Your task to perform on an android device: add a contact in the contacts app Image 0: 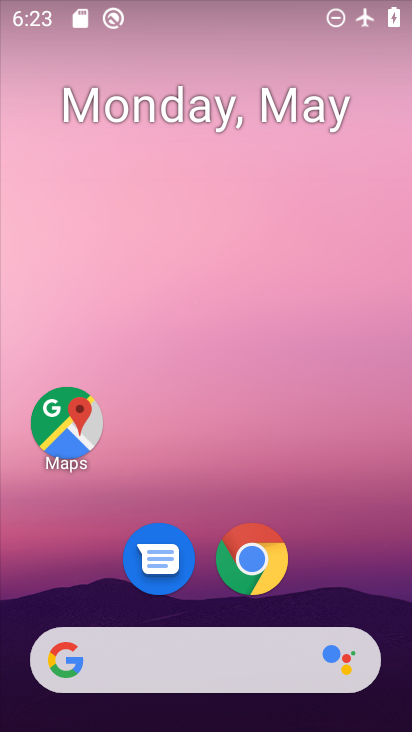
Step 0: drag from (341, 532) to (194, 11)
Your task to perform on an android device: add a contact in the contacts app Image 1: 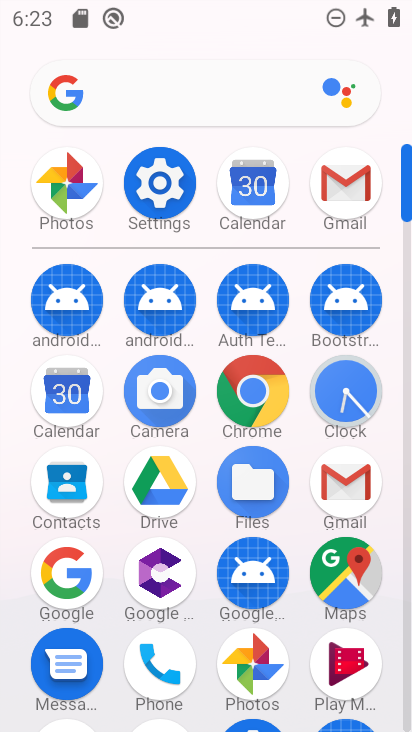
Step 1: click (61, 487)
Your task to perform on an android device: add a contact in the contacts app Image 2: 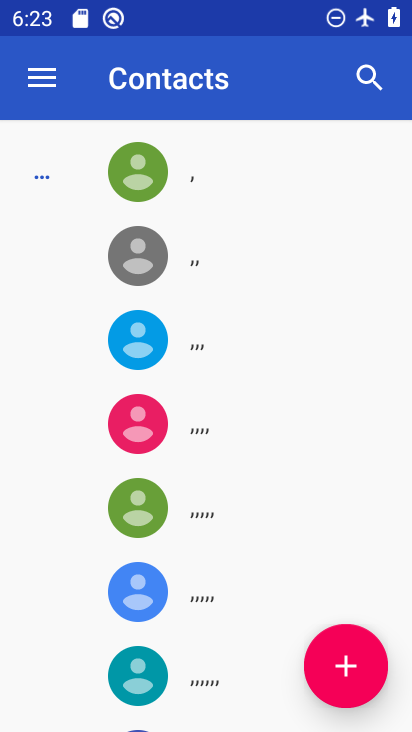
Step 2: click (342, 657)
Your task to perform on an android device: add a contact in the contacts app Image 3: 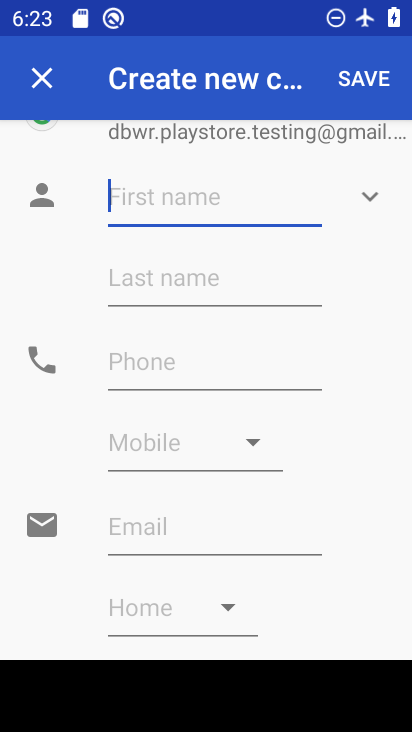
Step 3: type " cv"
Your task to perform on an android device: add a contact in the contacts app Image 4: 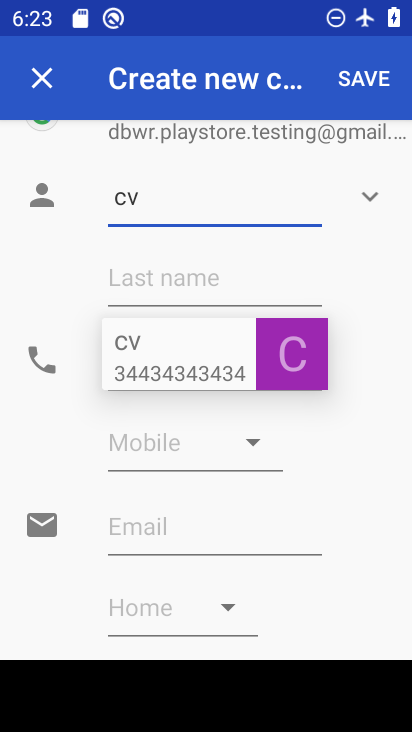
Step 4: click (137, 354)
Your task to perform on an android device: add a contact in the contacts app Image 5: 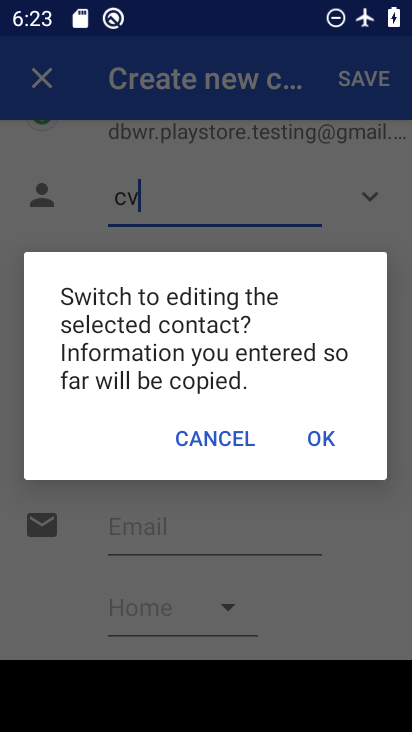
Step 5: click (217, 422)
Your task to perform on an android device: add a contact in the contacts app Image 6: 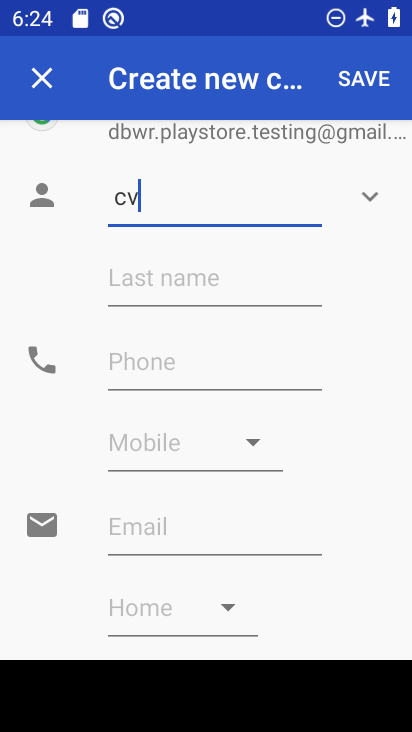
Step 6: click (150, 347)
Your task to perform on an android device: add a contact in the contacts app Image 7: 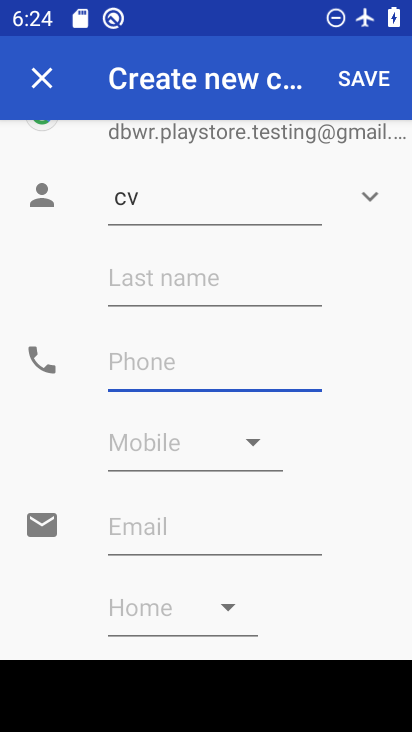
Step 7: type "455556"
Your task to perform on an android device: add a contact in the contacts app Image 8: 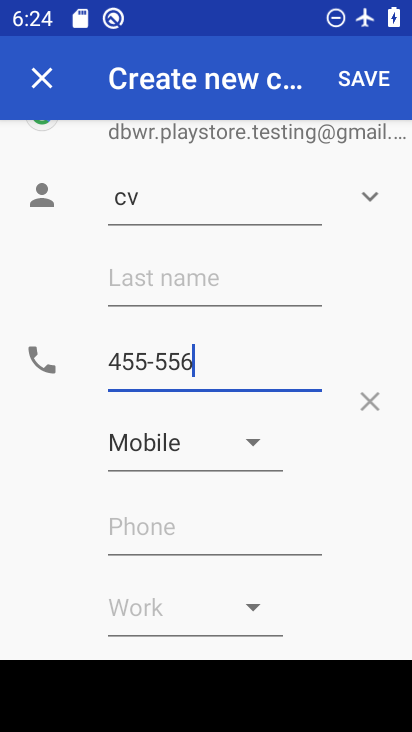
Step 8: click (353, 71)
Your task to perform on an android device: add a contact in the contacts app Image 9: 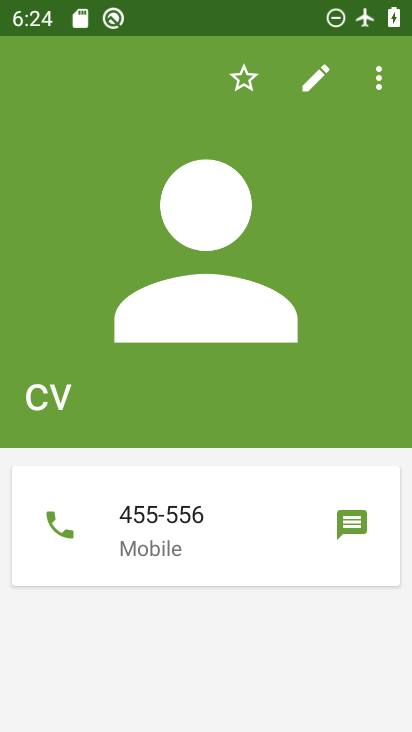
Step 9: task complete